Your task to perform on an android device: Show me popular videos on Youtube Image 0: 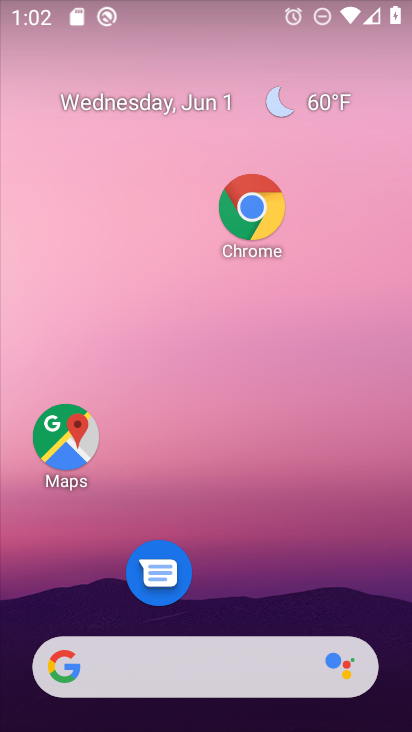
Step 0: drag from (213, 602) to (242, 240)
Your task to perform on an android device: Show me popular videos on Youtube Image 1: 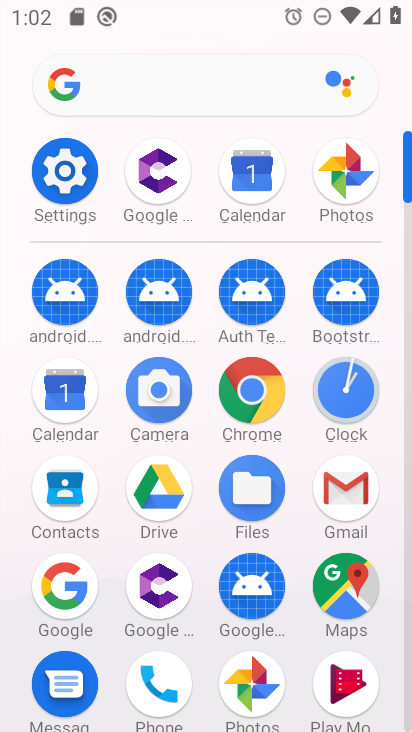
Step 1: drag from (293, 591) to (288, 211)
Your task to perform on an android device: Show me popular videos on Youtube Image 2: 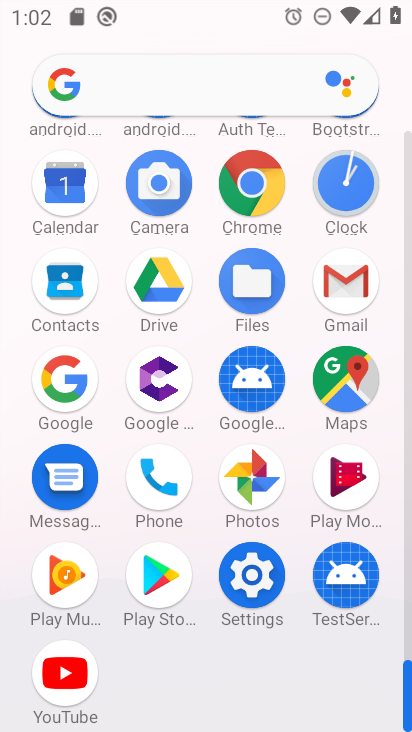
Step 2: click (95, 658)
Your task to perform on an android device: Show me popular videos on Youtube Image 3: 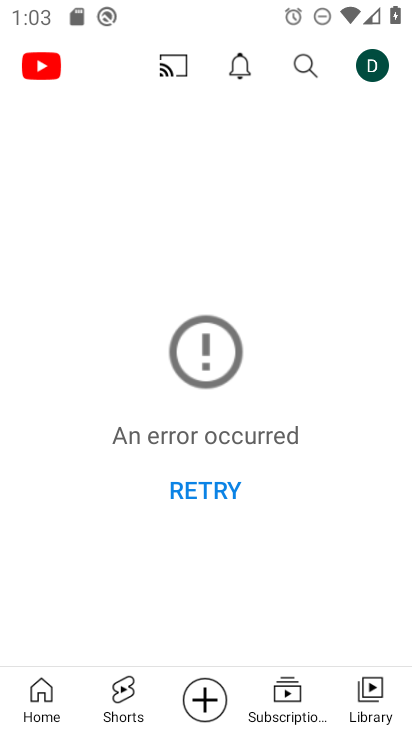
Step 3: click (311, 66)
Your task to perform on an android device: Show me popular videos on Youtube Image 4: 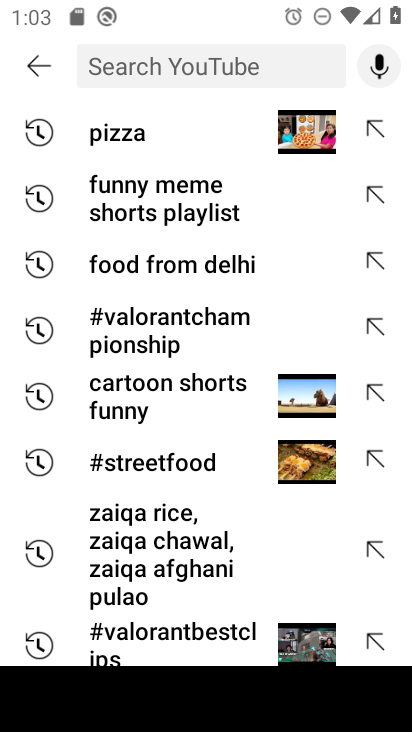
Step 4: click (156, 80)
Your task to perform on an android device: Show me popular videos on Youtube Image 5: 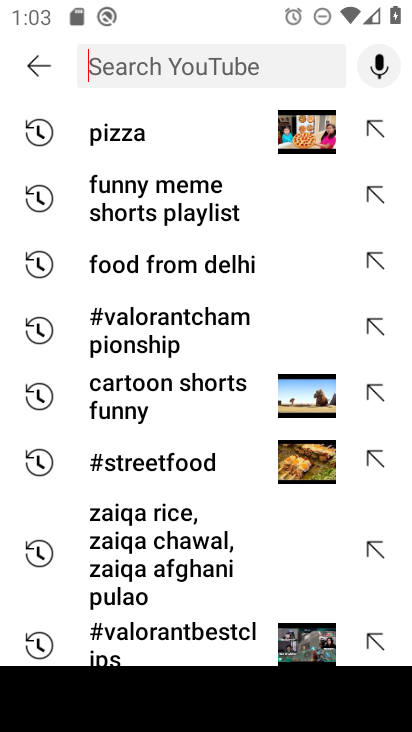
Step 5: type "popular videos"
Your task to perform on an android device: Show me popular videos on Youtube Image 6: 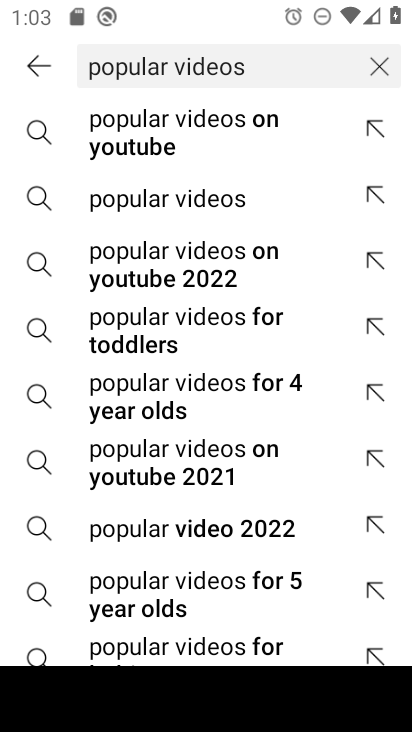
Step 6: click (211, 143)
Your task to perform on an android device: Show me popular videos on Youtube Image 7: 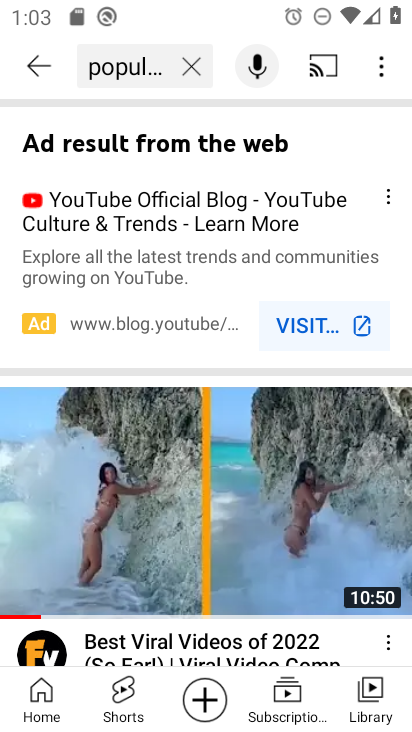
Step 7: task complete